Your task to perform on an android device: toggle notifications settings in the gmail app Image 0: 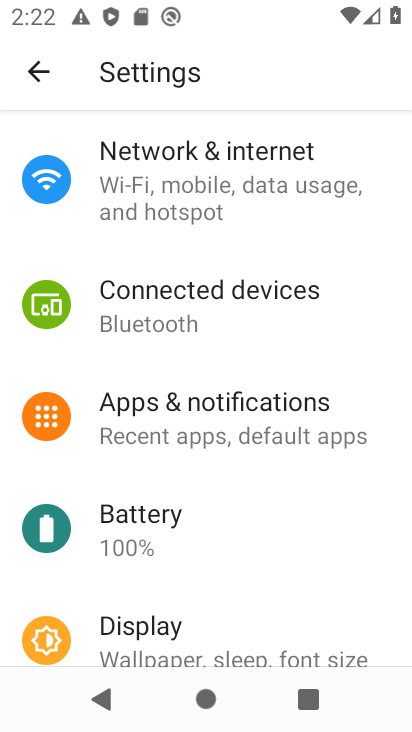
Step 0: click (228, 400)
Your task to perform on an android device: toggle notifications settings in the gmail app Image 1: 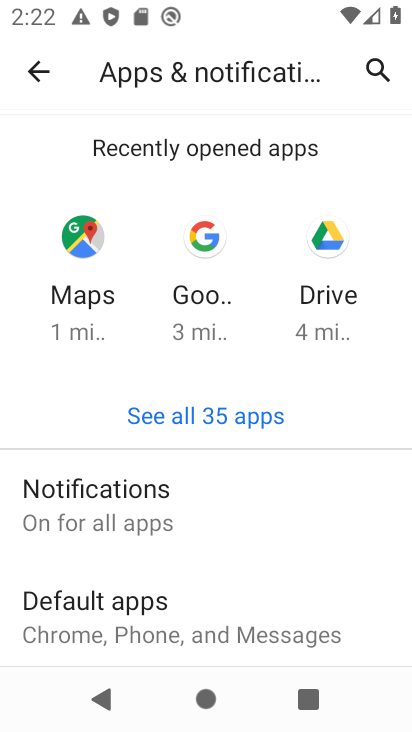
Step 1: click (142, 493)
Your task to perform on an android device: toggle notifications settings in the gmail app Image 2: 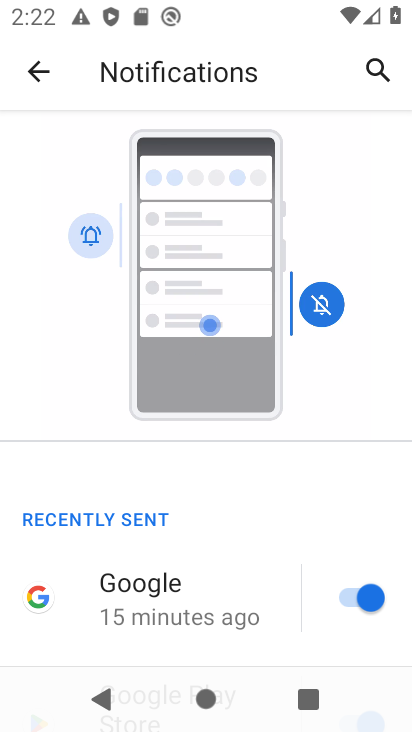
Step 2: task complete